Your task to perform on an android device: visit the assistant section in the google photos Image 0: 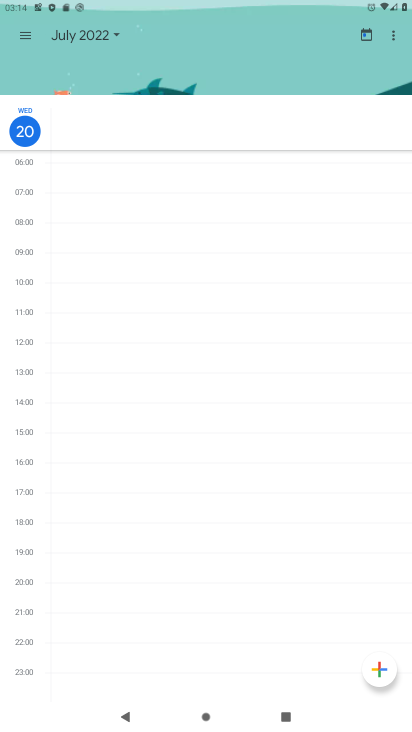
Step 0: press home button
Your task to perform on an android device: visit the assistant section in the google photos Image 1: 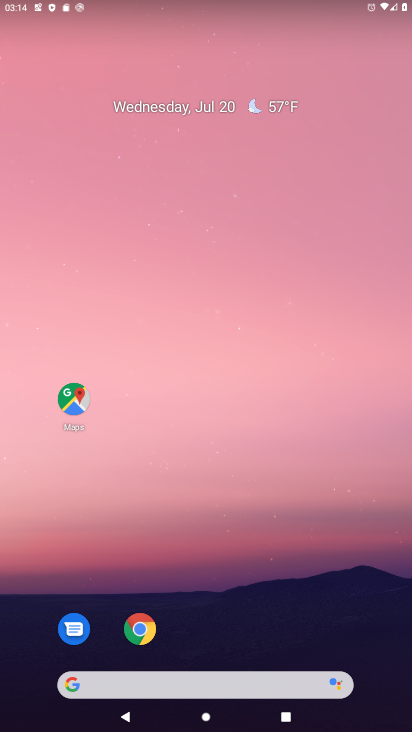
Step 1: drag from (340, 610) to (345, 28)
Your task to perform on an android device: visit the assistant section in the google photos Image 2: 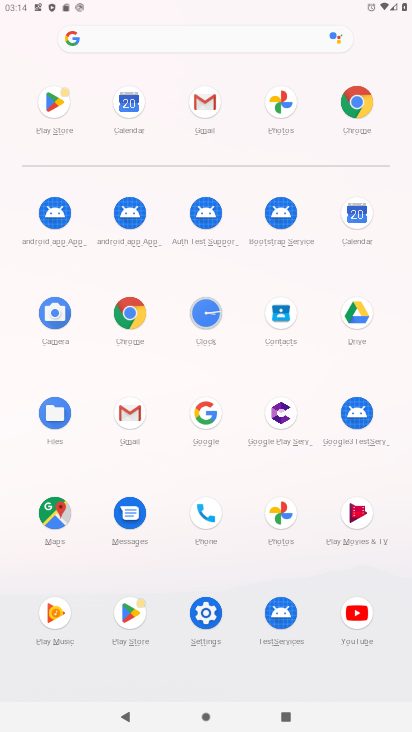
Step 2: click (279, 512)
Your task to perform on an android device: visit the assistant section in the google photos Image 3: 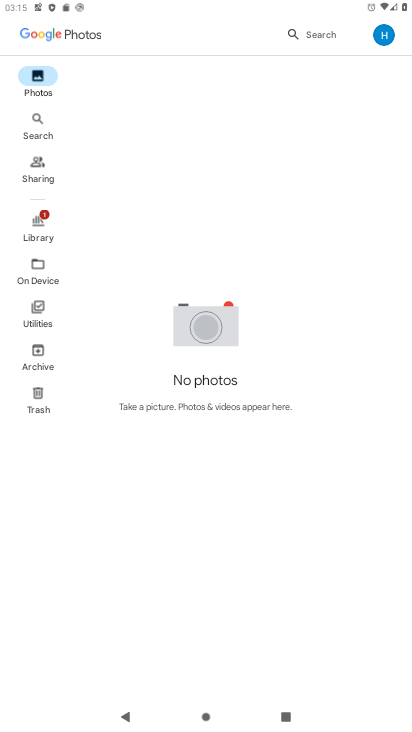
Step 3: task complete